Your task to perform on an android device: open app "Paramount+ | Peak Streaming" (install if not already installed) Image 0: 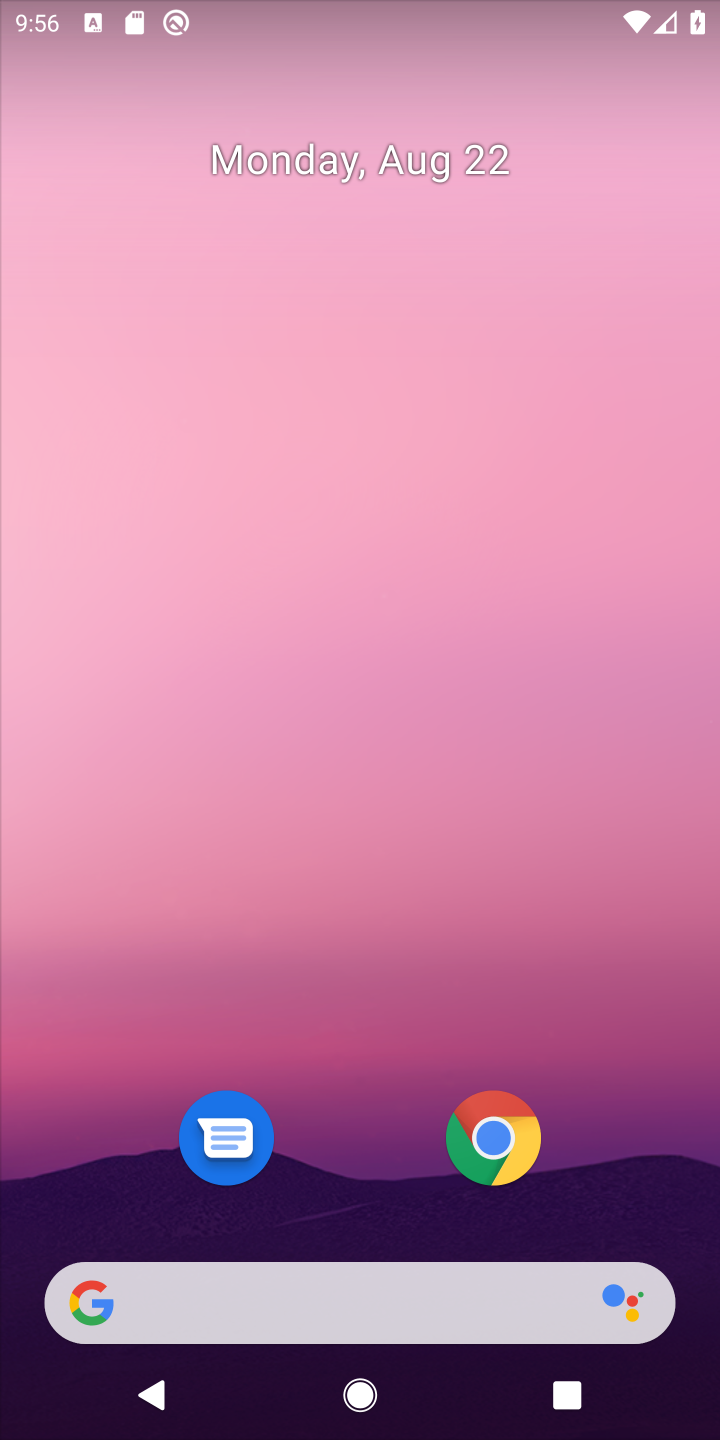
Step 0: press home button
Your task to perform on an android device: open app "Paramount+ | Peak Streaming" (install if not already installed) Image 1: 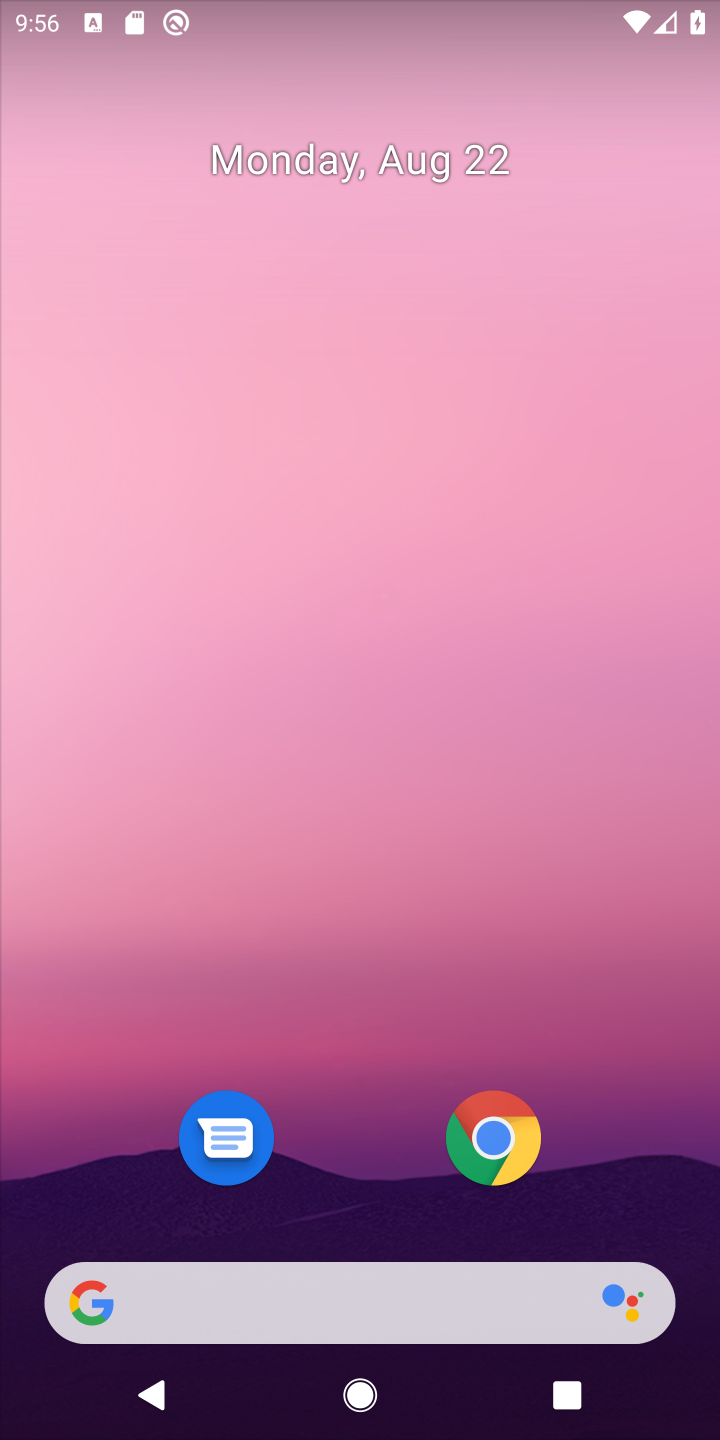
Step 1: drag from (365, 1215) to (371, 177)
Your task to perform on an android device: open app "Paramount+ | Peak Streaming" (install if not already installed) Image 2: 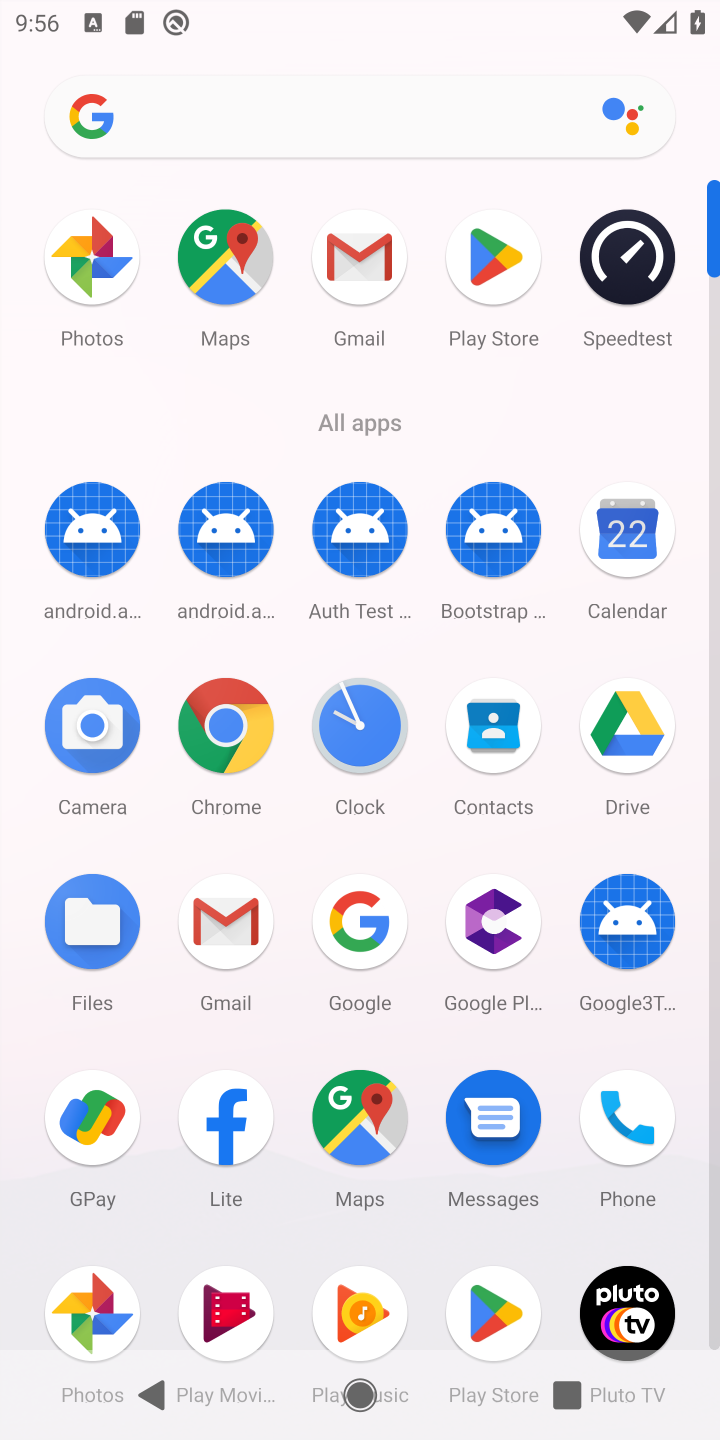
Step 2: click (486, 1300)
Your task to perform on an android device: open app "Paramount+ | Peak Streaming" (install if not already installed) Image 3: 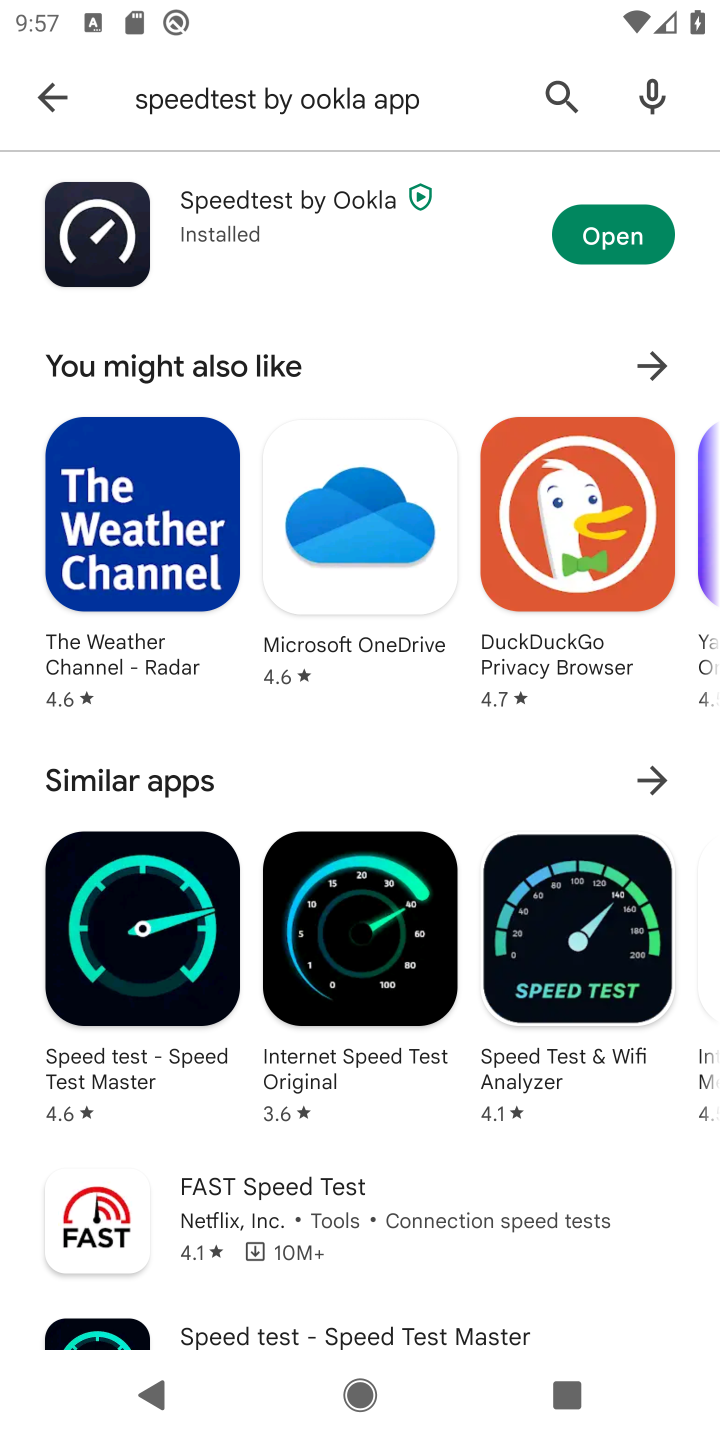
Step 3: click (547, 109)
Your task to perform on an android device: open app "Paramount+ | Peak Streaming" (install if not already installed) Image 4: 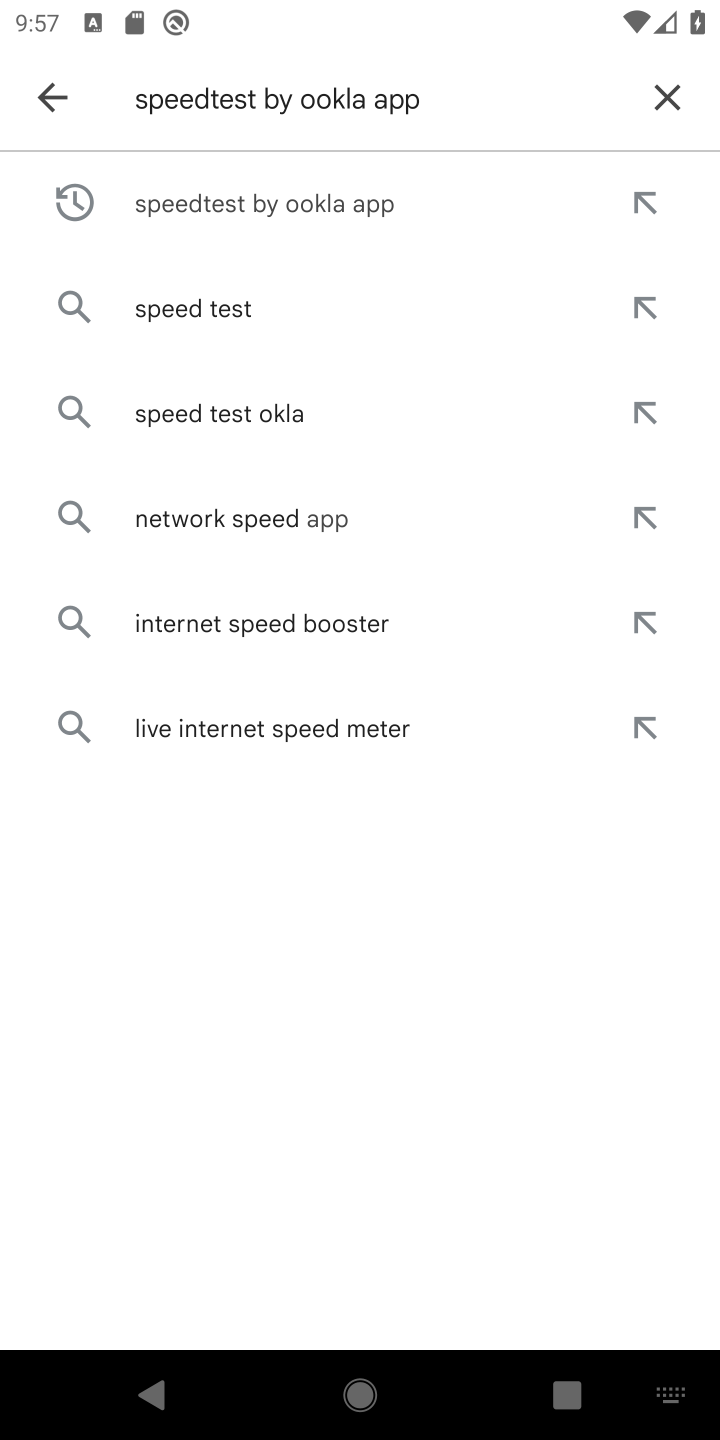
Step 4: click (656, 99)
Your task to perform on an android device: open app "Paramount+ | Peak Streaming" (install if not already installed) Image 5: 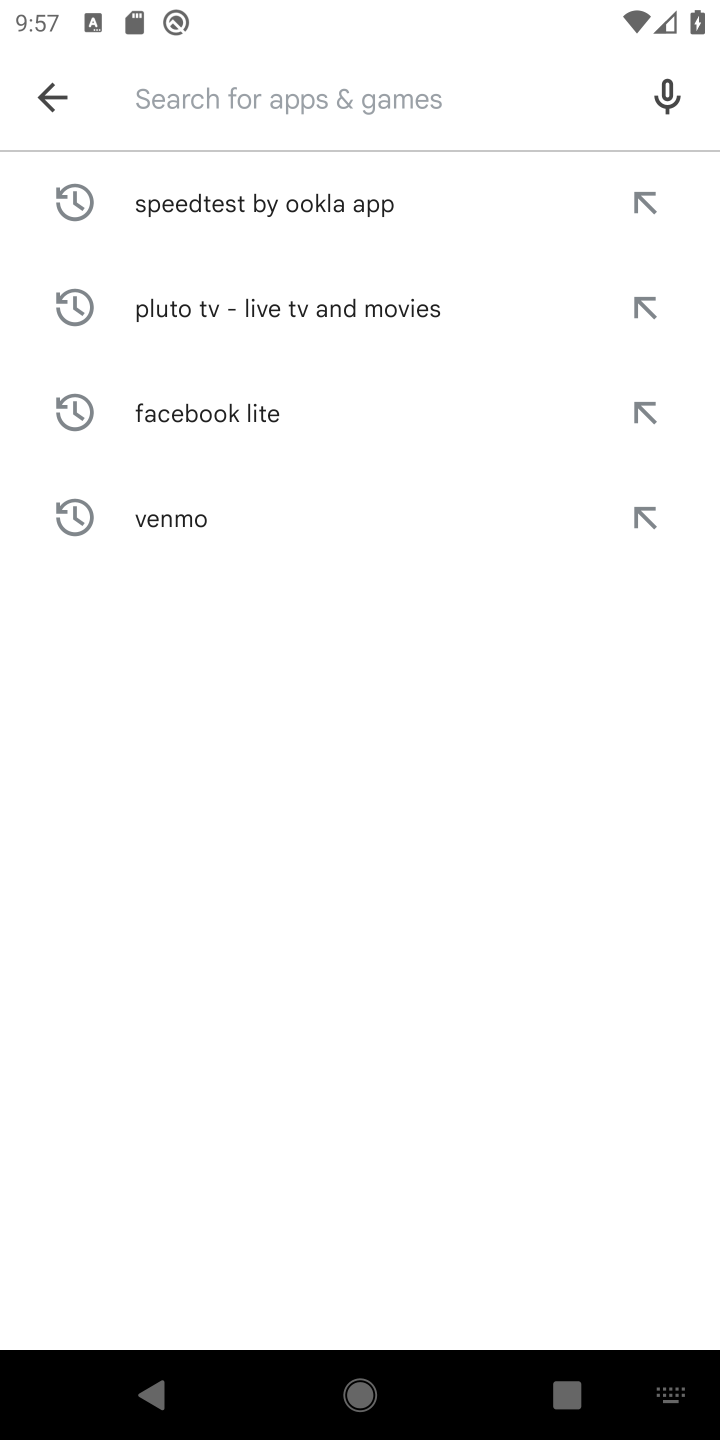
Step 5: type "Paramount+ | Peak Streaming"
Your task to perform on an android device: open app "Paramount+ | Peak Streaming" (install if not already installed) Image 6: 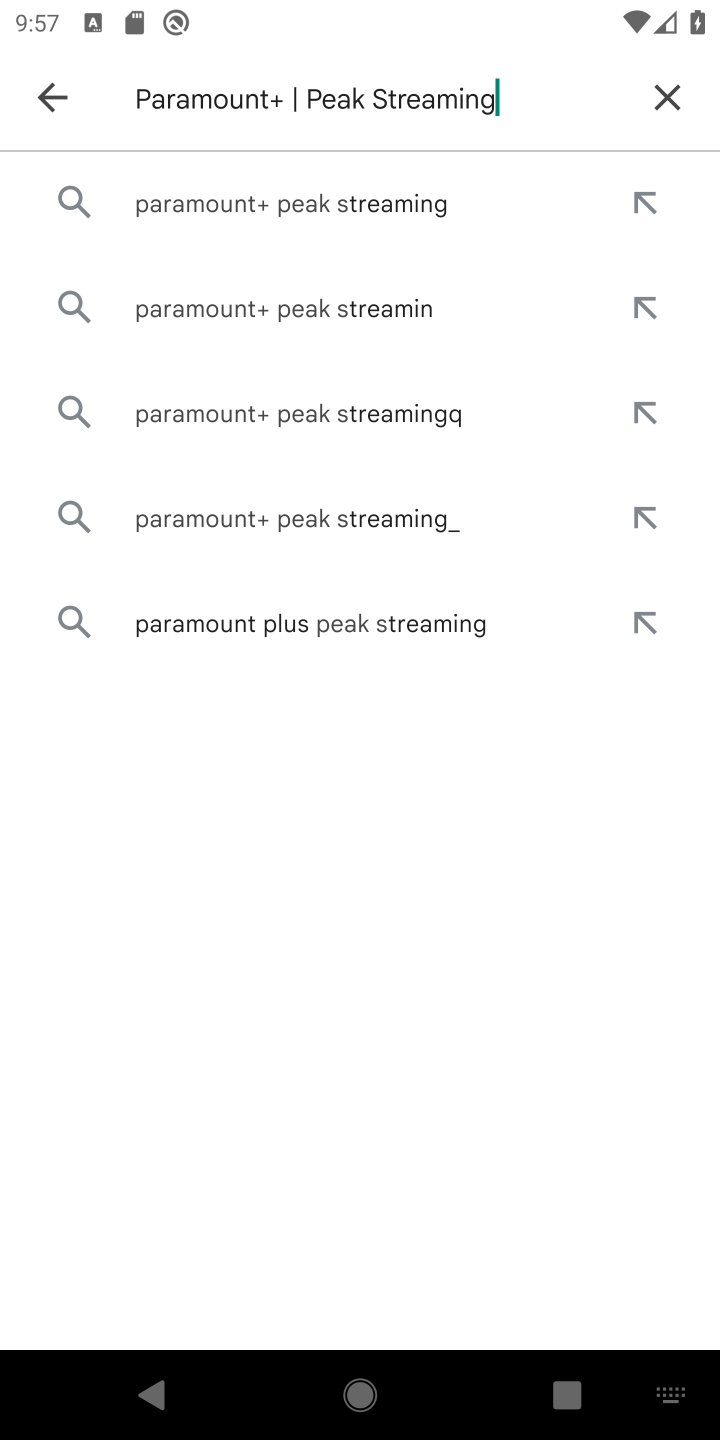
Step 6: type ""
Your task to perform on an android device: open app "Paramount+ | Peak Streaming" (install if not already installed) Image 7: 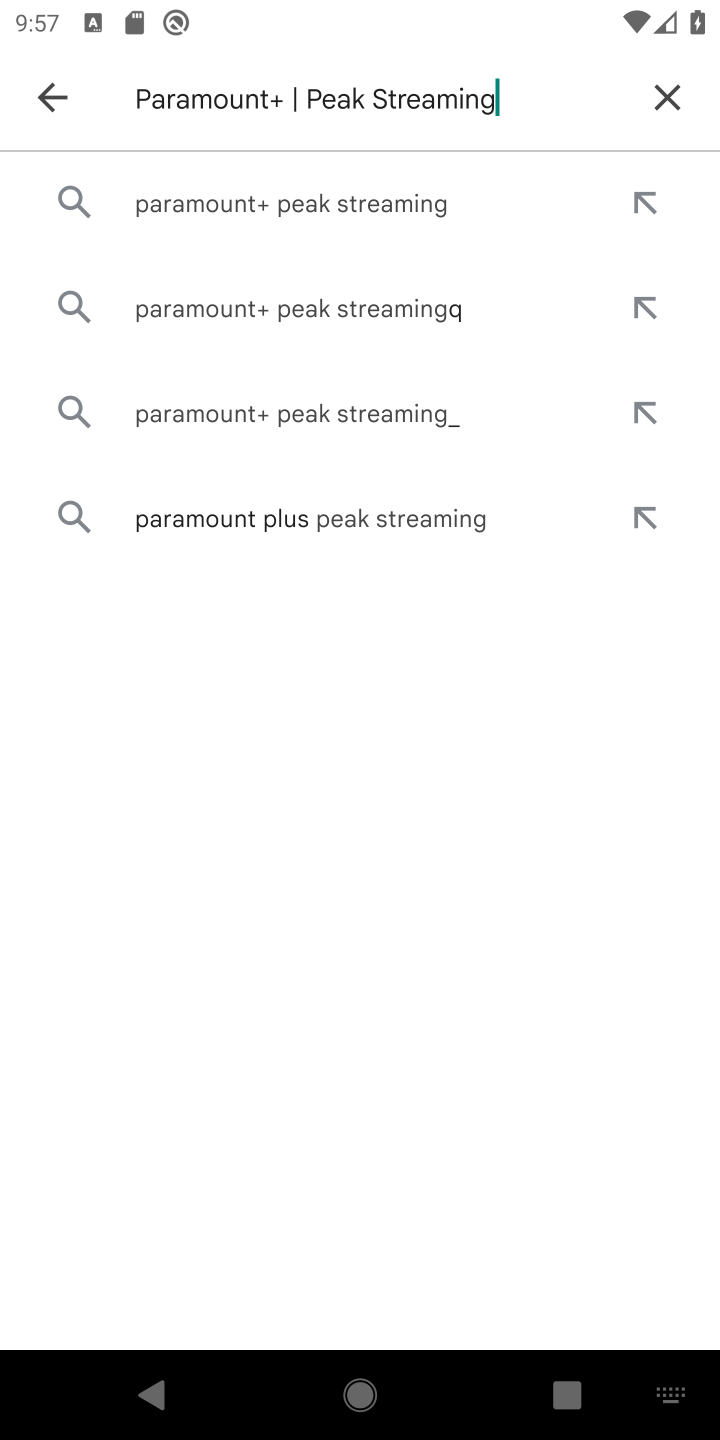
Step 7: click (327, 211)
Your task to perform on an android device: open app "Paramount+ | Peak Streaming" (install if not already installed) Image 8: 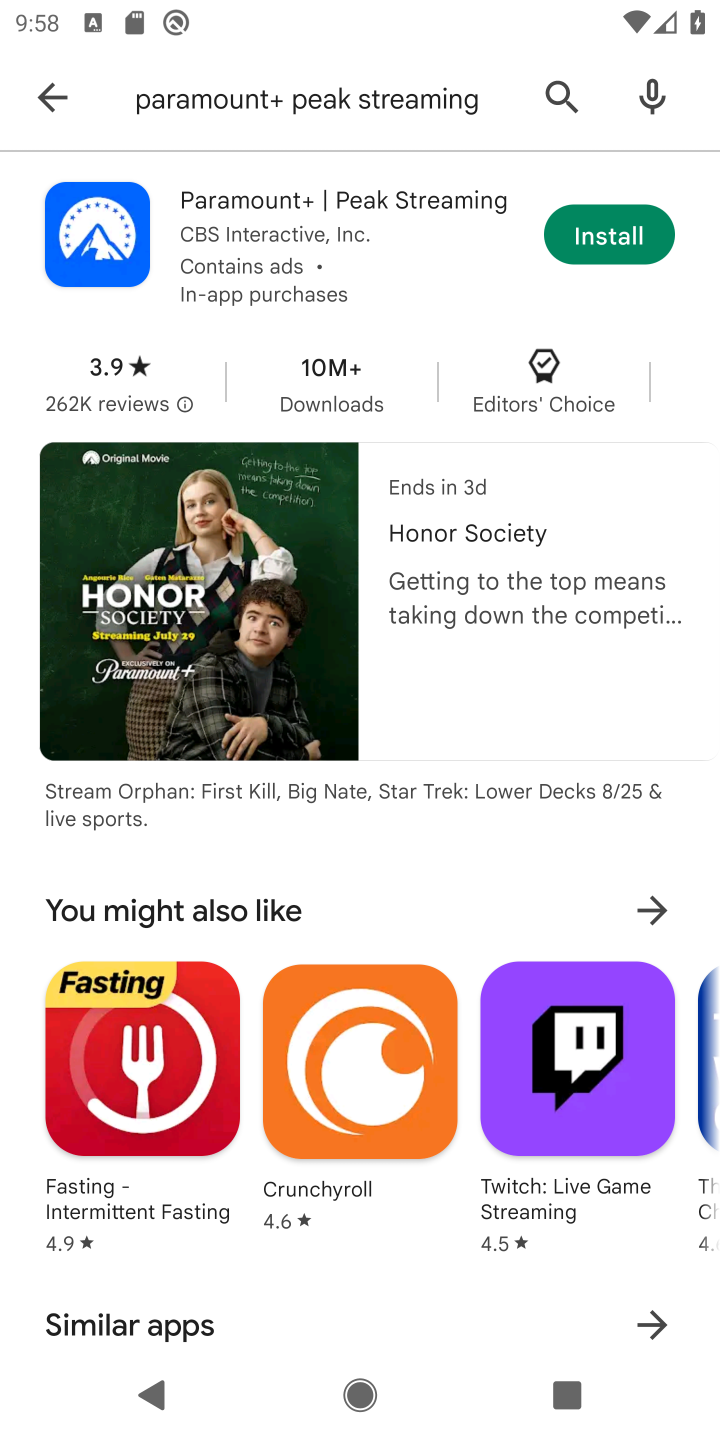
Step 8: click (616, 236)
Your task to perform on an android device: open app "Paramount+ | Peak Streaming" (install if not already installed) Image 9: 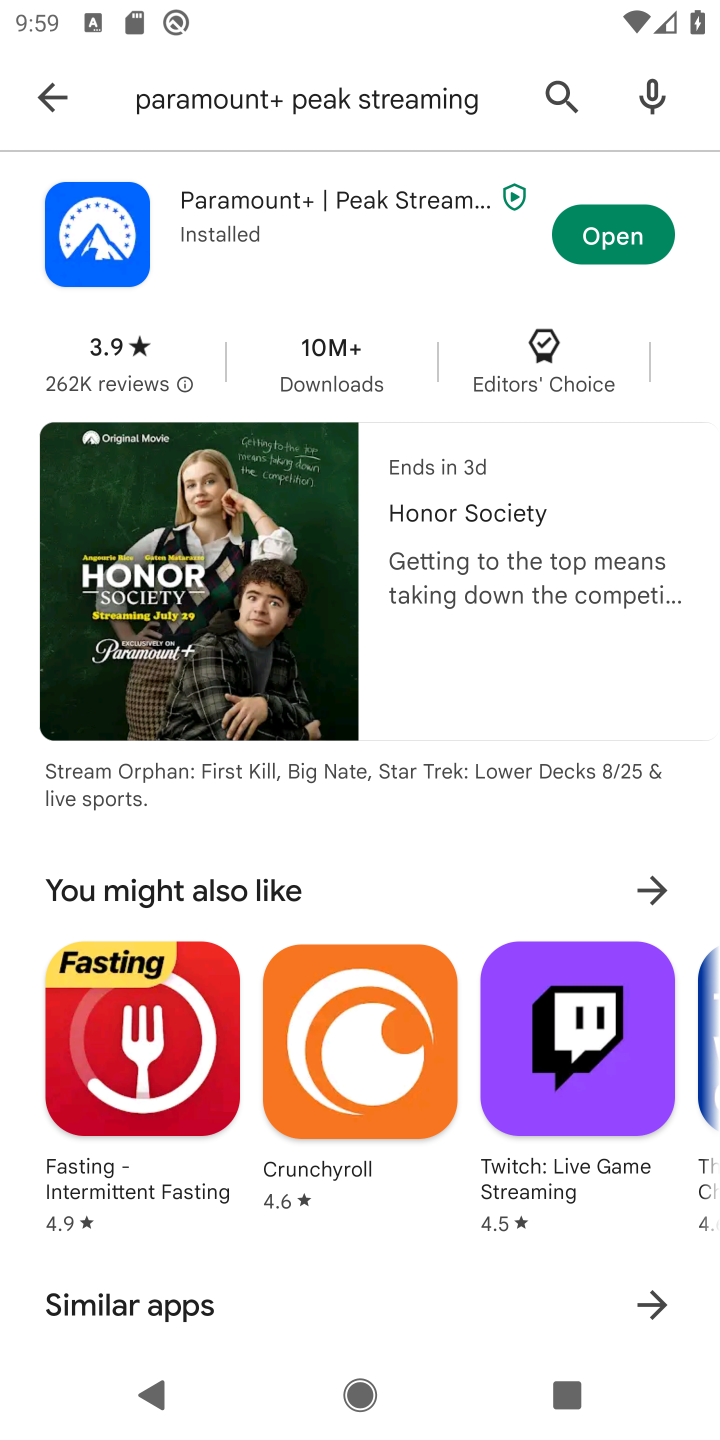
Step 9: click (618, 235)
Your task to perform on an android device: open app "Paramount+ | Peak Streaming" (install if not already installed) Image 10: 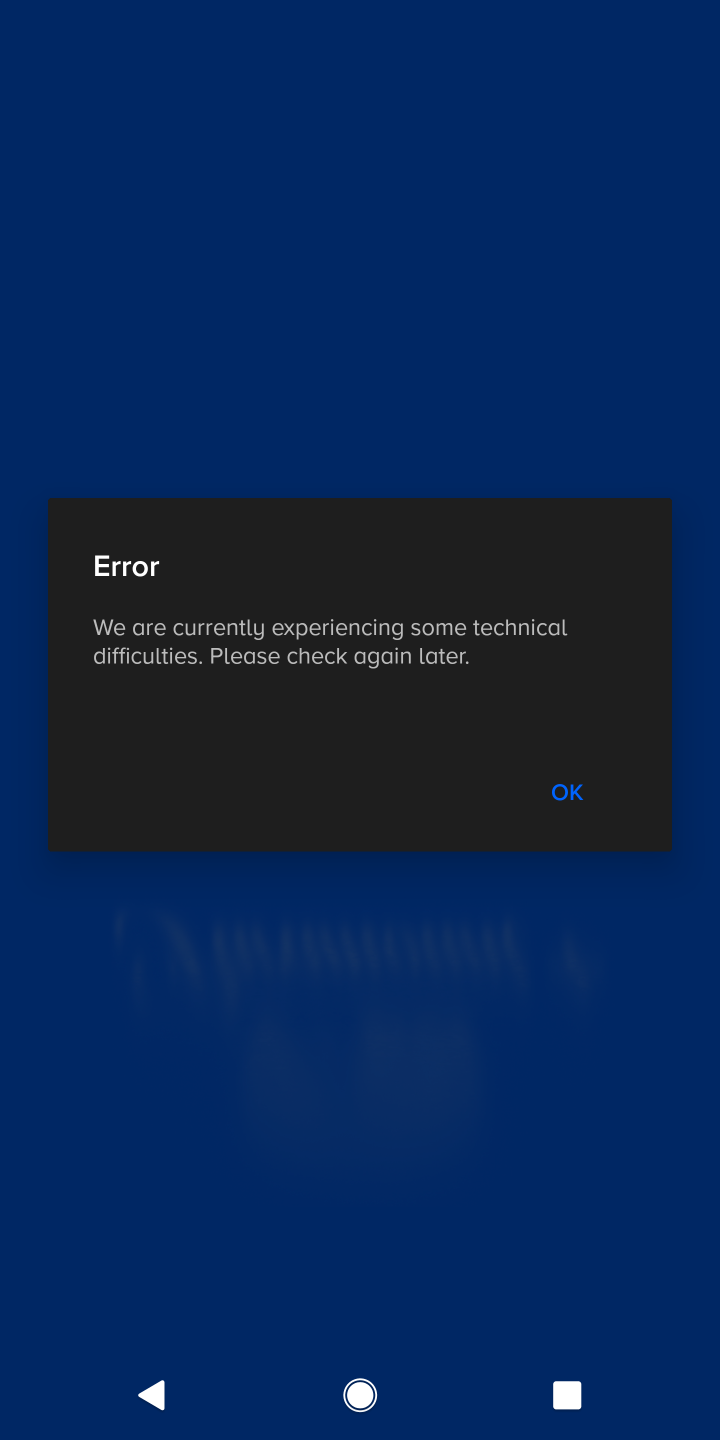
Step 10: click (569, 783)
Your task to perform on an android device: open app "Paramount+ | Peak Streaming" (install if not already installed) Image 11: 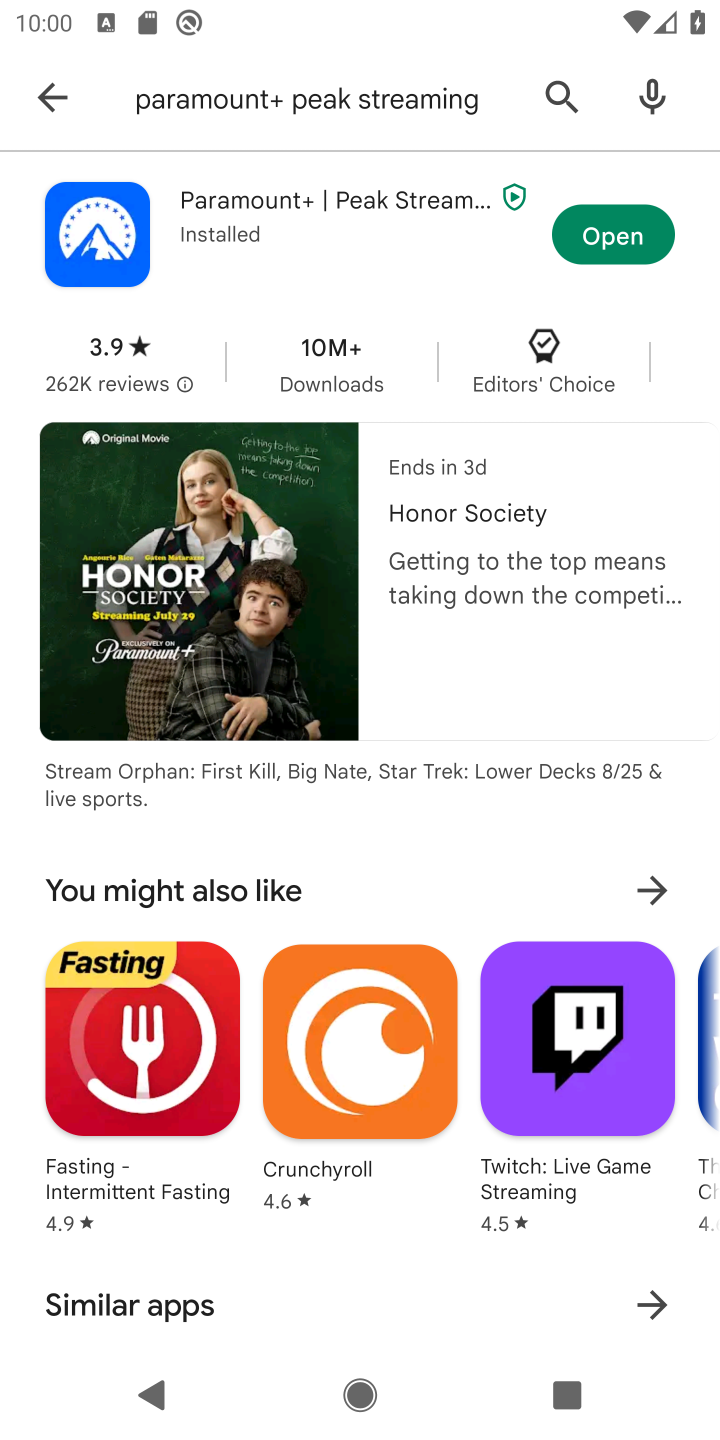
Step 11: click (646, 228)
Your task to perform on an android device: open app "Paramount+ | Peak Streaming" (install if not already installed) Image 12: 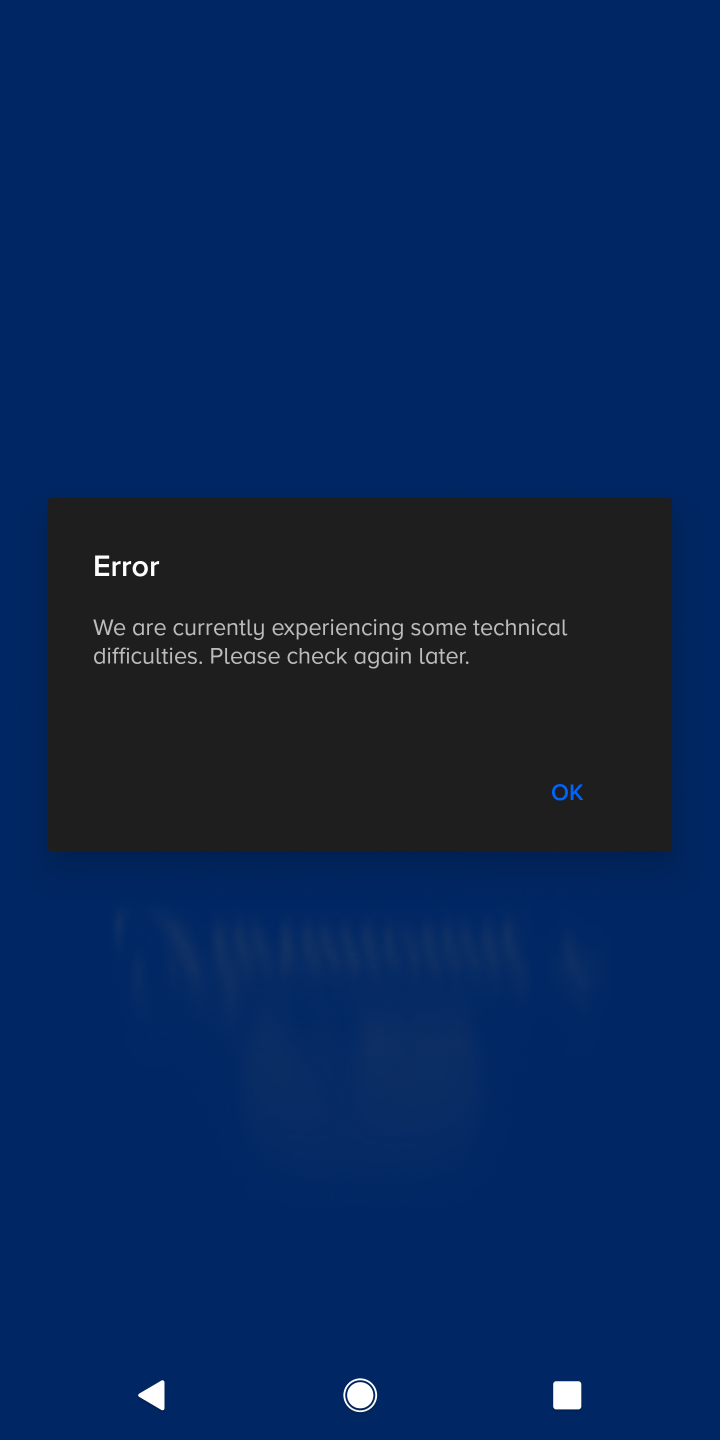
Step 12: click (587, 799)
Your task to perform on an android device: open app "Paramount+ | Peak Streaming" (install if not already installed) Image 13: 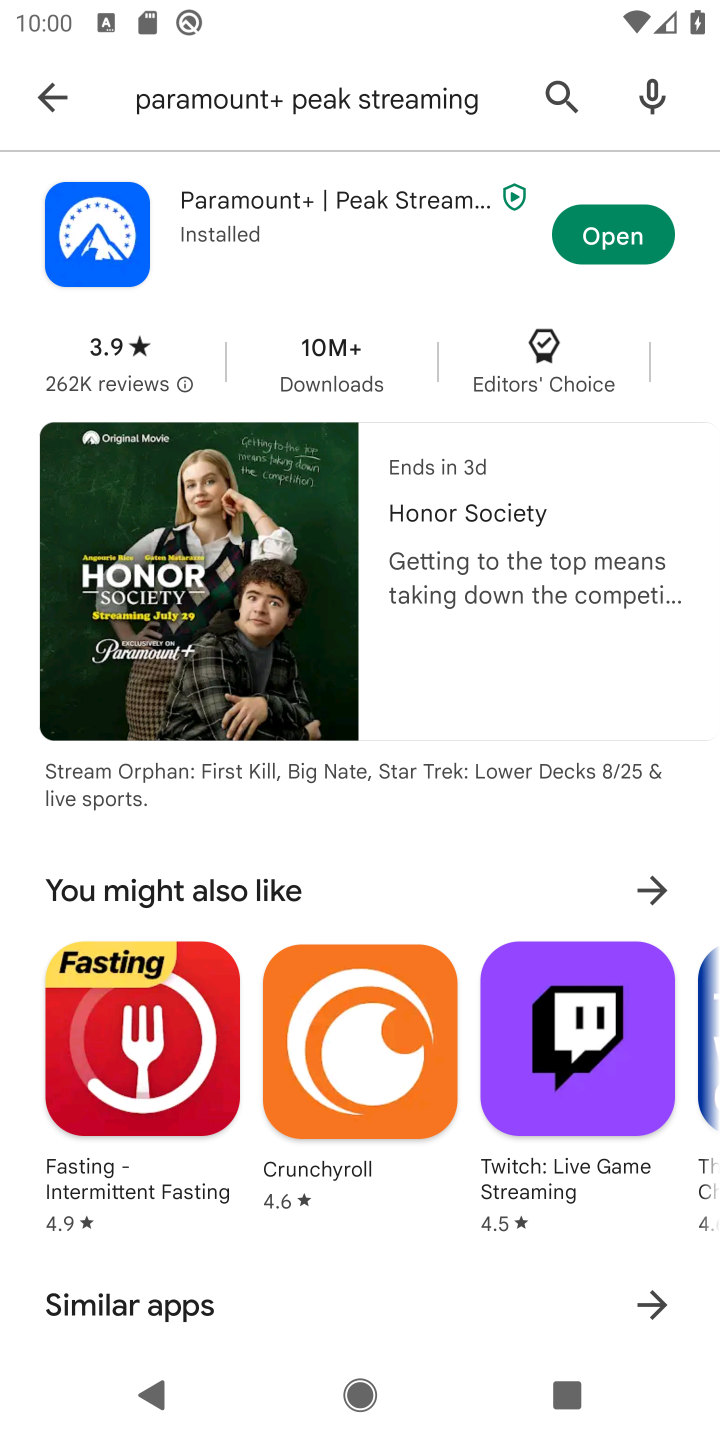
Step 13: task complete